Your task to perform on an android device: Is it going to rain tomorrow? Image 0: 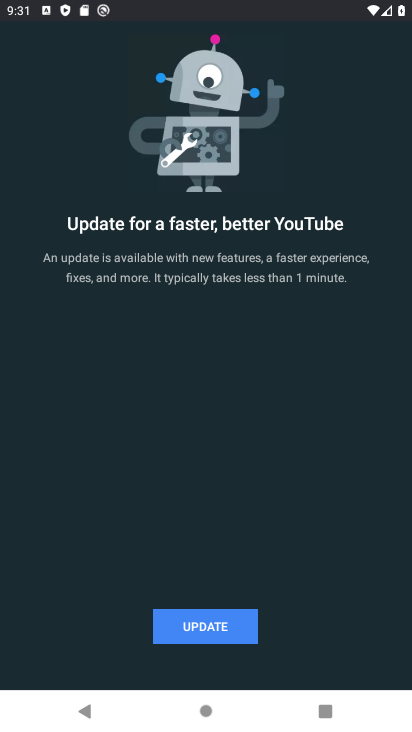
Step 0: press home button
Your task to perform on an android device: Is it going to rain tomorrow? Image 1: 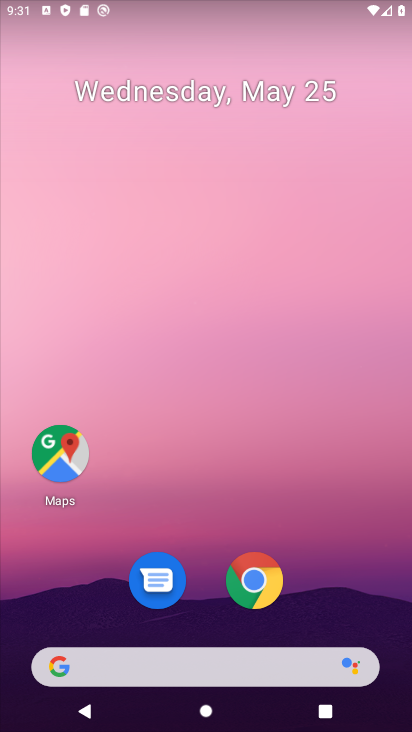
Step 1: click (143, 668)
Your task to perform on an android device: Is it going to rain tomorrow? Image 2: 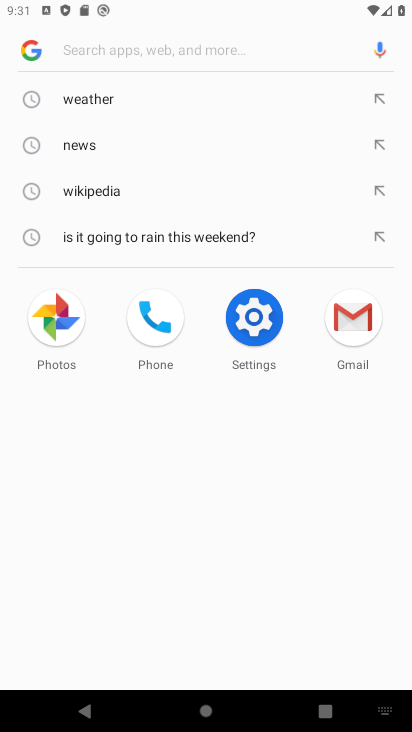
Step 2: click (97, 95)
Your task to perform on an android device: Is it going to rain tomorrow? Image 3: 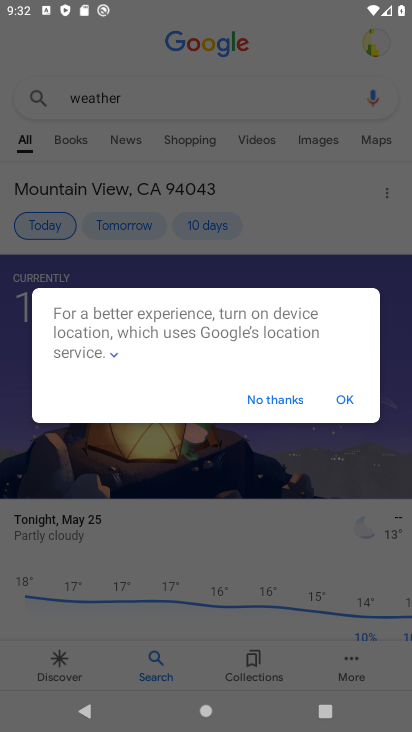
Step 3: click (244, 400)
Your task to perform on an android device: Is it going to rain tomorrow? Image 4: 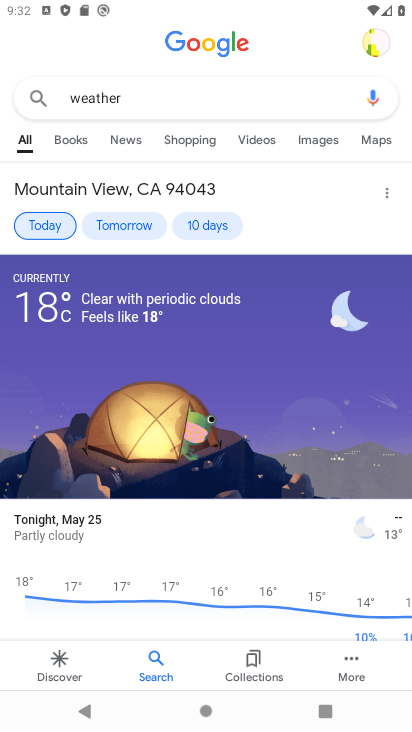
Step 4: click (105, 228)
Your task to perform on an android device: Is it going to rain tomorrow? Image 5: 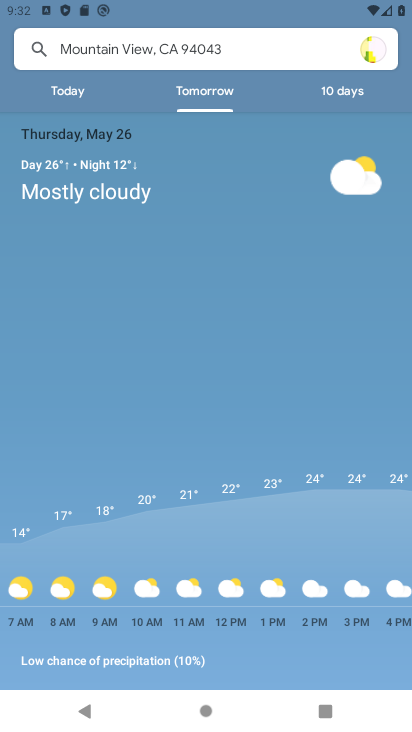
Step 5: task complete